Your task to perform on an android device: turn on sleep mode Image 0: 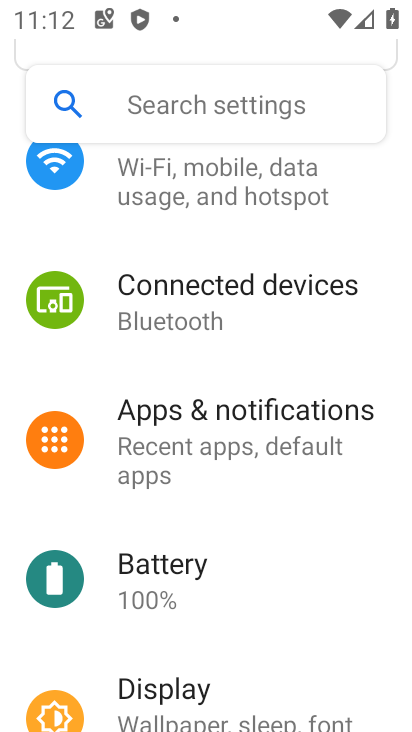
Step 0: press home button
Your task to perform on an android device: turn on sleep mode Image 1: 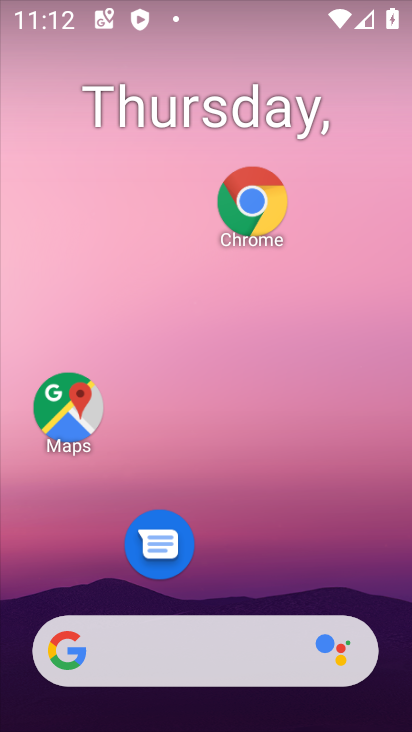
Step 1: drag from (213, 592) to (211, 35)
Your task to perform on an android device: turn on sleep mode Image 2: 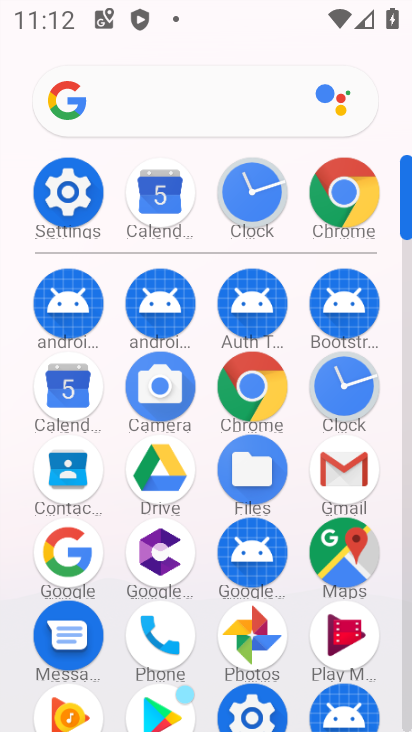
Step 2: click (64, 185)
Your task to perform on an android device: turn on sleep mode Image 3: 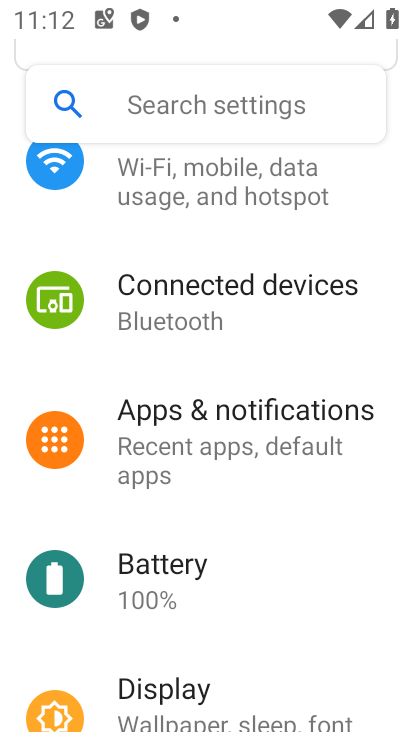
Step 3: click (231, 691)
Your task to perform on an android device: turn on sleep mode Image 4: 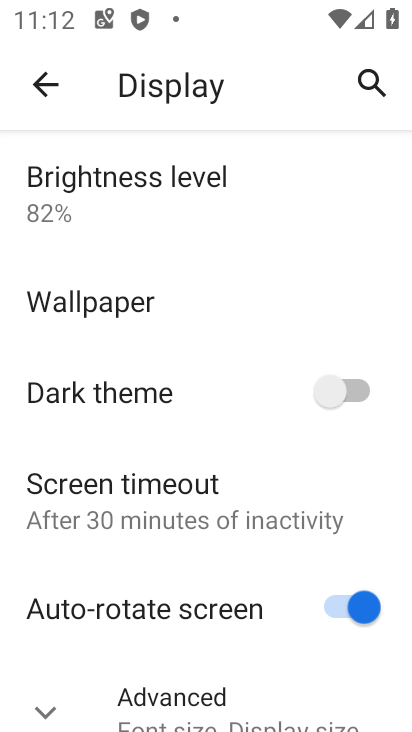
Step 4: drag from (215, 651) to (228, 125)
Your task to perform on an android device: turn on sleep mode Image 5: 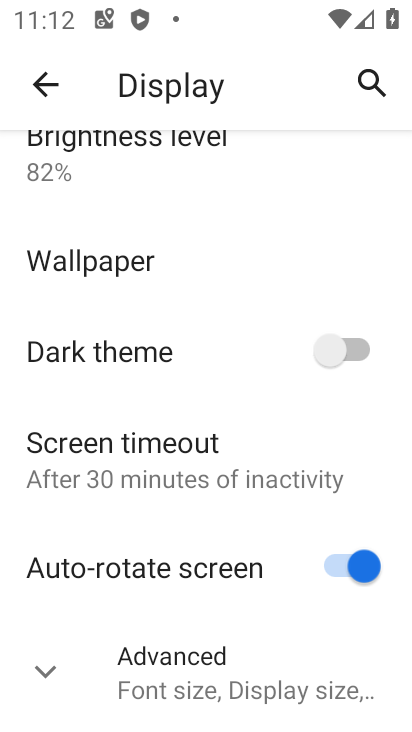
Step 5: click (51, 664)
Your task to perform on an android device: turn on sleep mode Image 6: 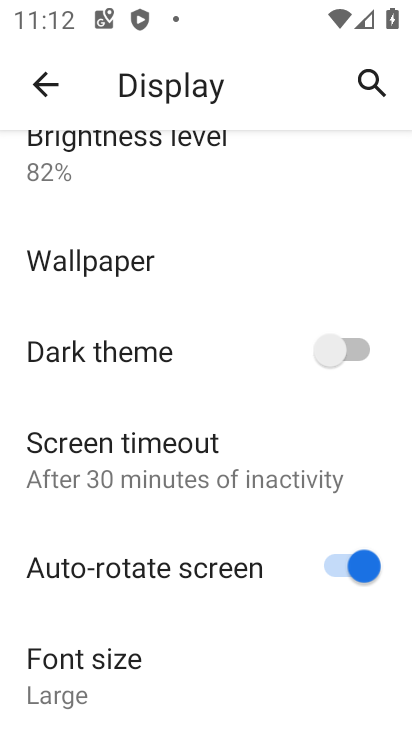
Step 6: task complete